Your task to perform on an android device: Show me productivity apps on the Play Store Image 0: 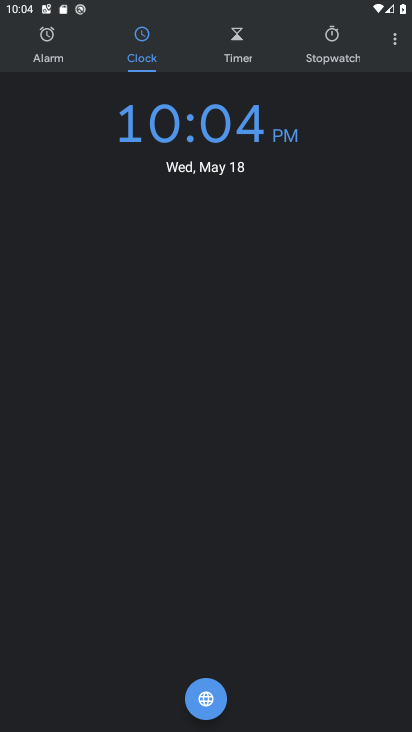
Step 0: press back button
Your task to perform on an android device: Show me productivity apps on the Play Store Image 1: 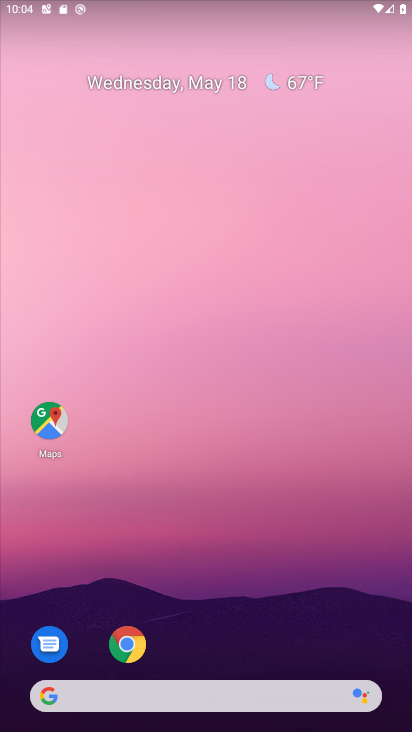
Step 1: drag from (235, 602) to (198, 134)
Your task to perform on an android device: Show me productivity apps on the Play Store Image 2: 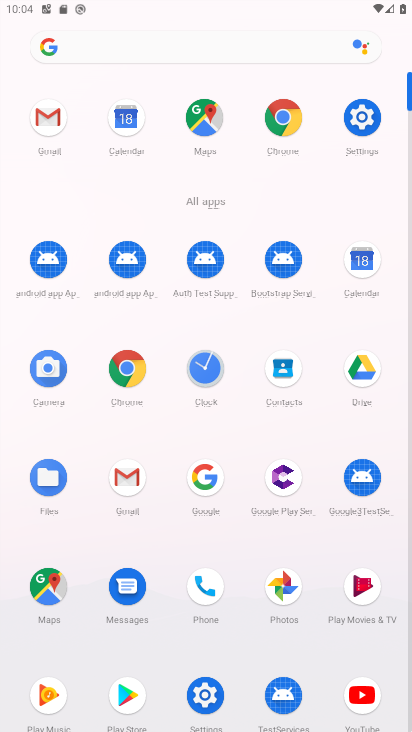
Step 2: drag from (241, 544) to (228, 423)
Your task to perform on an android device: Show me productivity apps on the Play Store Image 3: 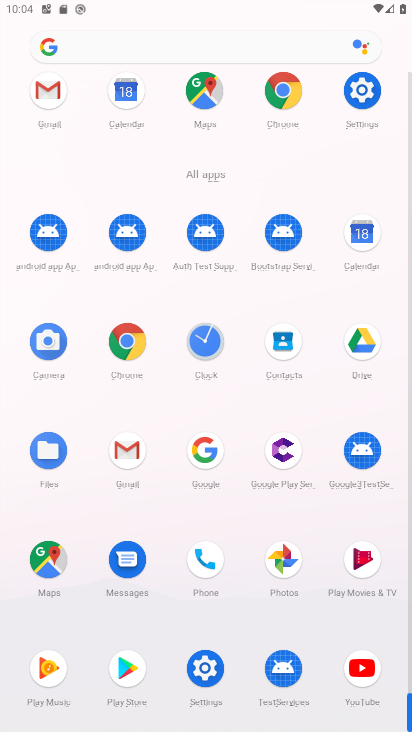
Step 3: click (127, 665)
Your task to perform on an android device: Show me productivity apps on the Play Store Image 4: 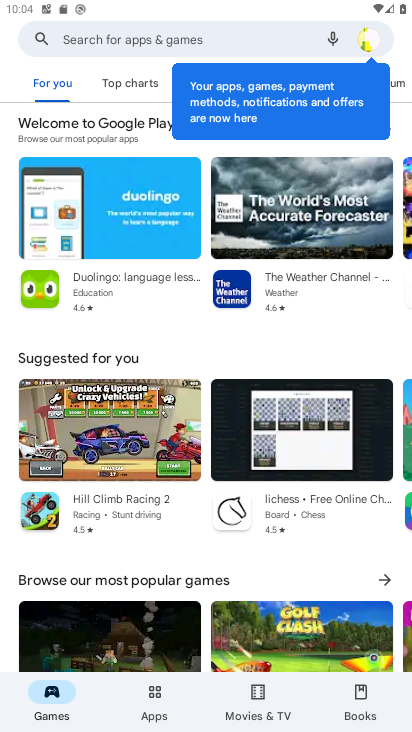
Step 4: click (152, 690)
Your task to perform on an android device: Show me productivity apps on the Play Store Image 5: 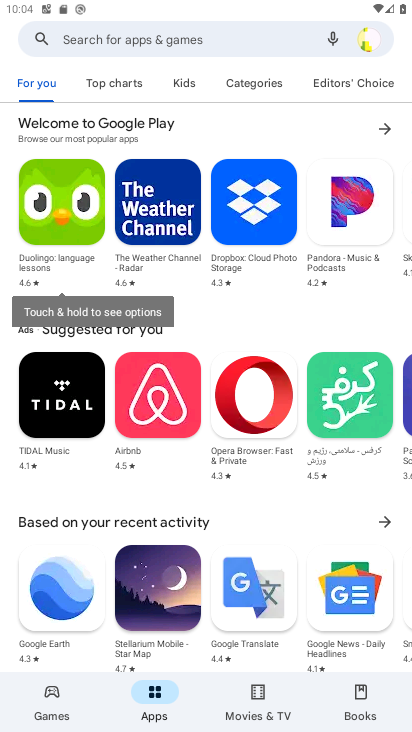
Step 5: click (253, 85)
Your task to perform on an android device: Show me productivity apps on the Play Store Image 6: 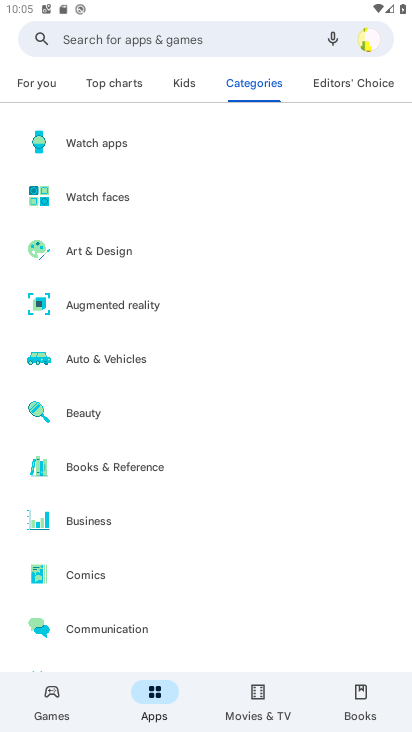
Step 6: drag from (122, 386) to (176, 290)
Your task to perform on an android device: Show me productivity apps on the Play Store Image 7: 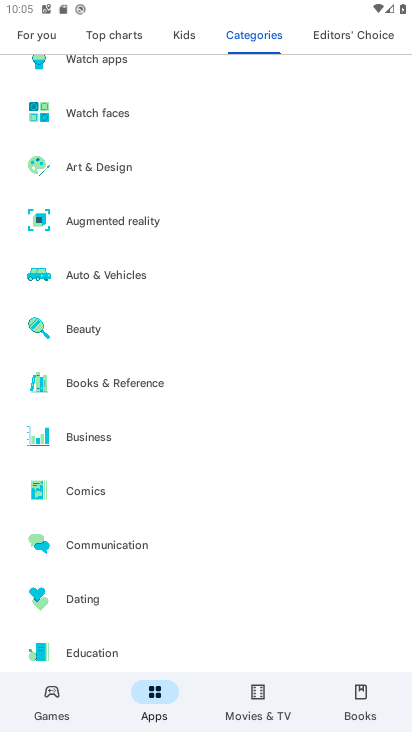
Step 7: drag from (86, 404) to (170, 310)
Your task to perform on an android device: Show me productivity apps on the Play Store Image 8: 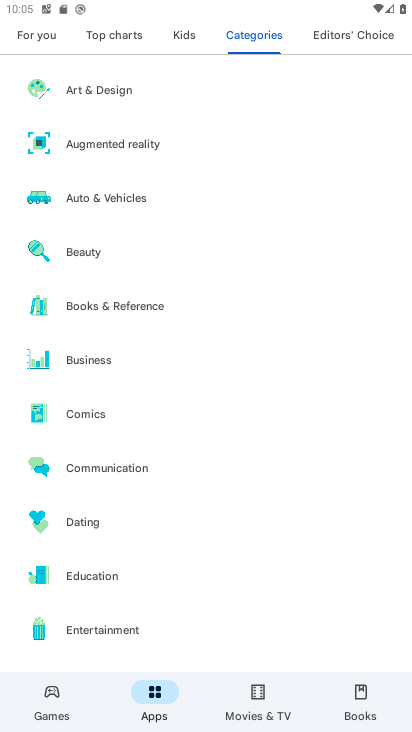
Step 8: drag from (90, 391) to (141, 304)
Your task to perform on an android device: Show me productivity apps on the Play Store Image 9: 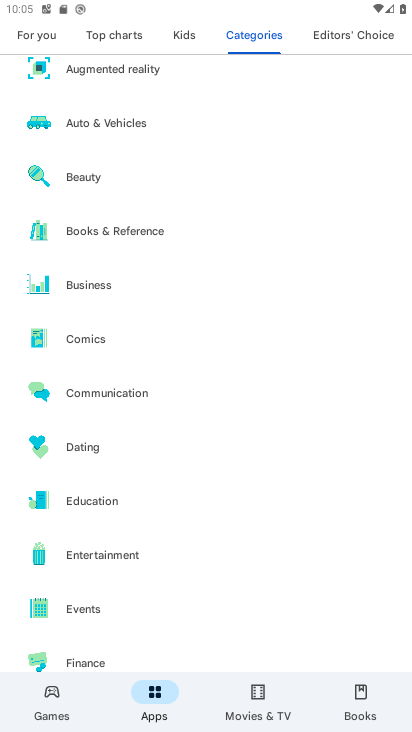
Step 9: drag from (81, 363) to (135, 283)
Your task to perform on an android device: Show me productivity apps on the Play Store Image 10: 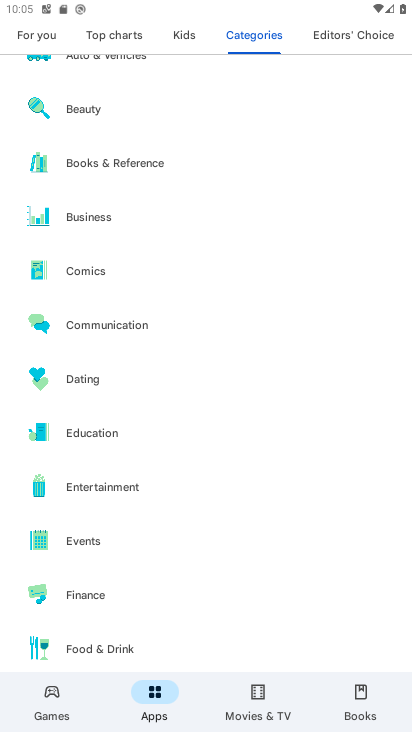
Step 10: drag from (73, 353) to (129, 267)
Your task to perform on an android device: Show me productivity apps on the Play Store Image 11: 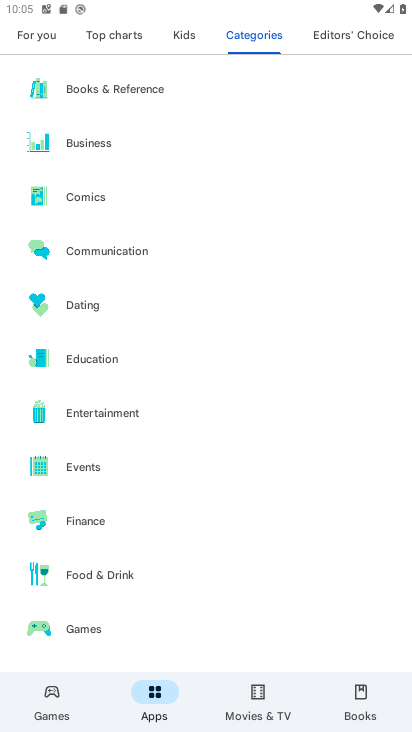
Step 11: drag from (77, 338) to (143, 253)
Your task to perform on an android device: Show me productivity apps on the Play Store Image 12: 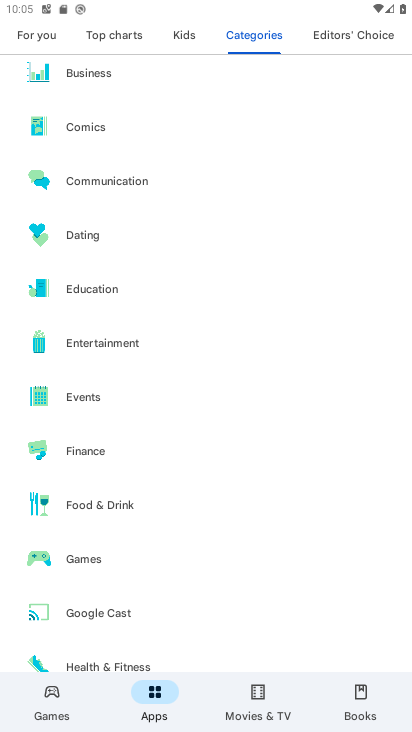
Step 12: drag from (68, 364) to (141, 278)
Your task to perform on an android device: Show me productivity apps on the Play Store Image 13: 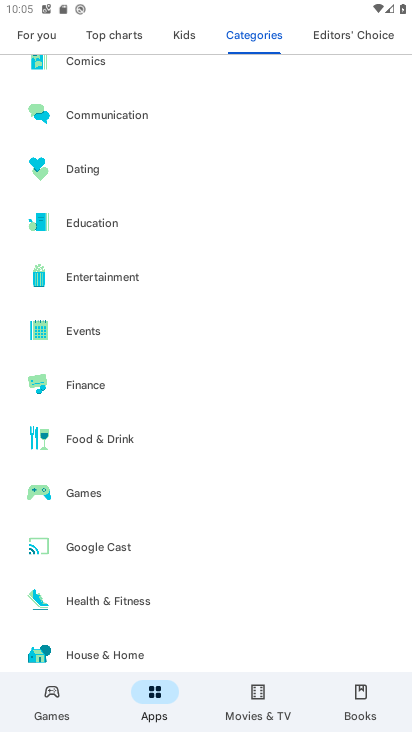
Step 13: drag from (74, 357) to (140, 276)
Your task to perform on an android device: Show me productivity apps on the Play Store Image 14: 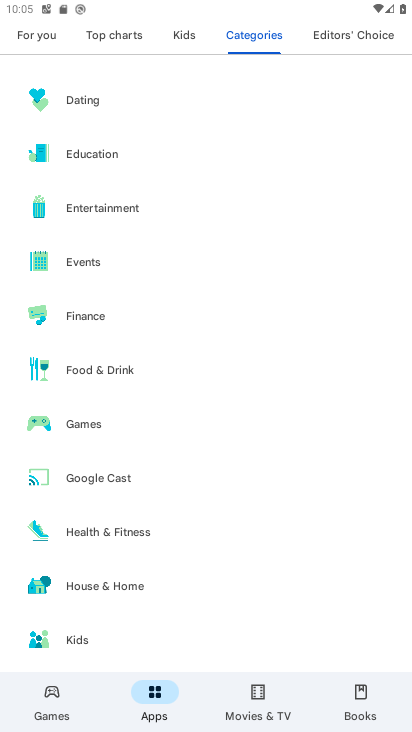
Step 14: drag from (69, 351) to (131, 268)
Your task to perform on an android device: Show me productivity apps on the Play Store Image 15: 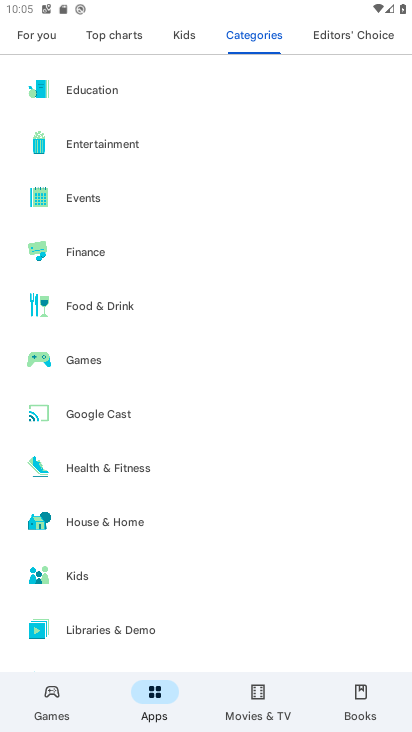
Step 15: drag from (73, 333) to (139, 255)
Your task to perform on an android device: Show me productivity apps on the Play Store Image 16: 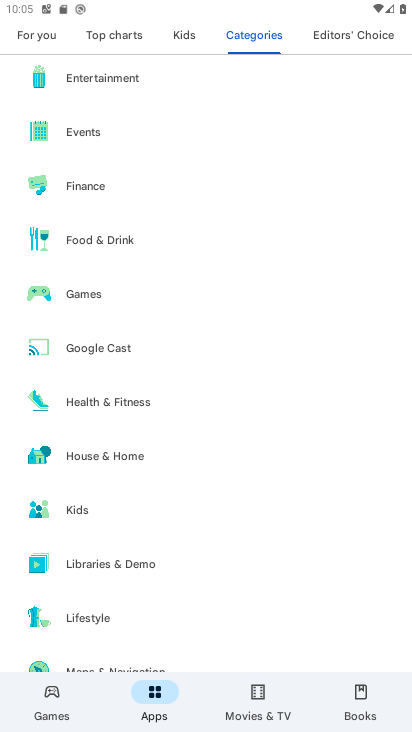
Step 16: drag from (76, 363) to (139, 284)
Your task to perform on an android device: Show me productivity apps on the Play Store Image 17: 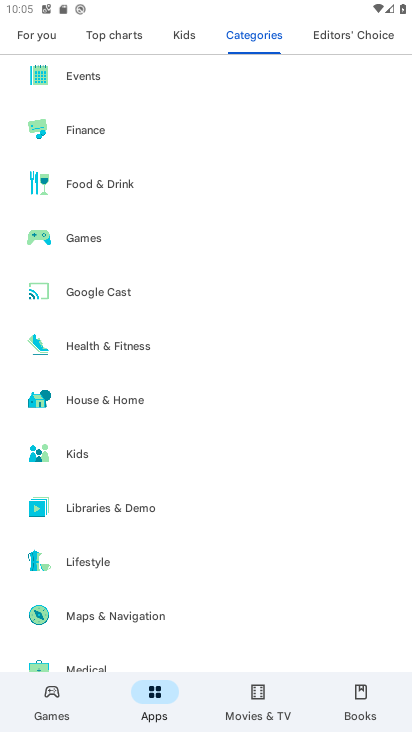
Step 17: drag from (78, 368) to (142, 293)
Your task to perform on an android device: Show me productivity apps on the Play Store Image 18: 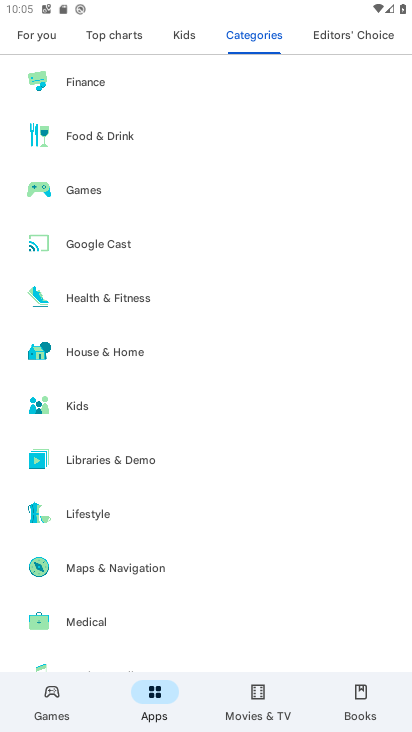
Step 18: drag from (88, 330) to (160, 253)
Your task to perform on an android device: Show me productivity apps on the Play Store Image 19: 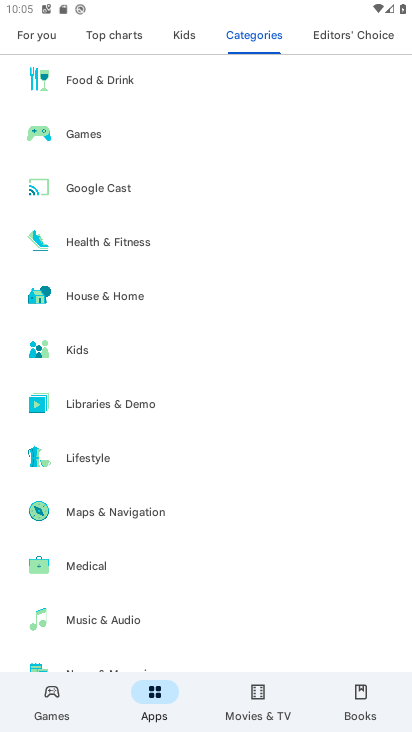
Step 19: drag from (81, 322) to (143, 244)
Your task to perform on an android device: Show me productivity apps on the Play Store Image 20: 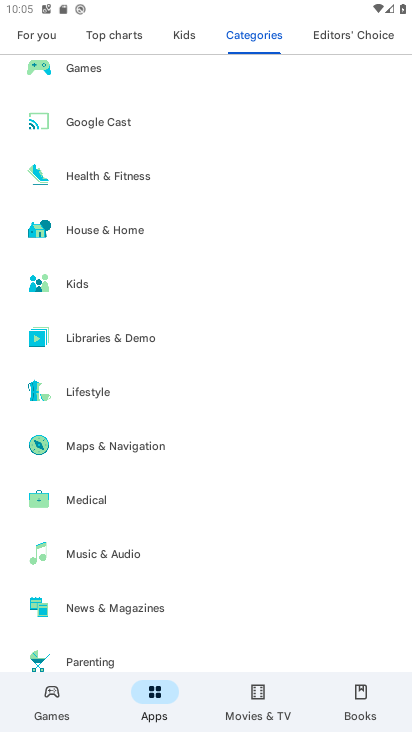
Step 20: drag from (70, 369) to (147, 269)
Your task to perform on an android device: Show me productivity apps on the Play Store Image 21: 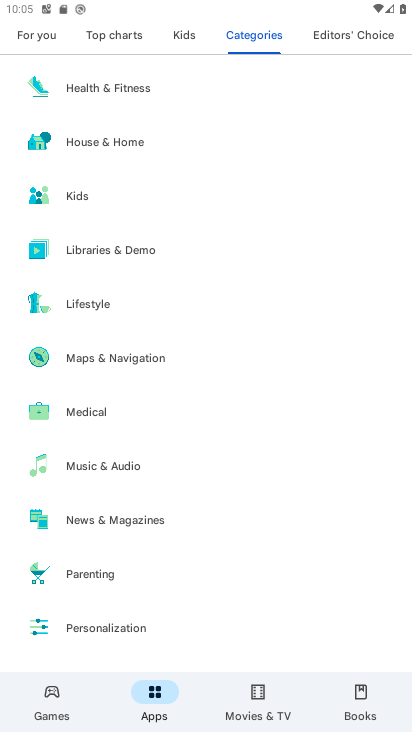
Step 21: drag from (67, 379) to (161, 269)
Your task to perform on an android device: Show me productivity apps on the Play Store Image 22: 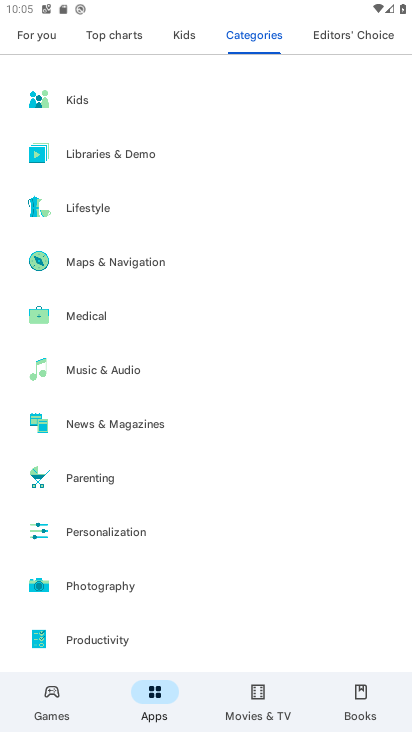
Step 22: drag from (75, 396) to (144, 301)
Your task to perform on an android device: Show me productivity apps on the Play Store Image 23: 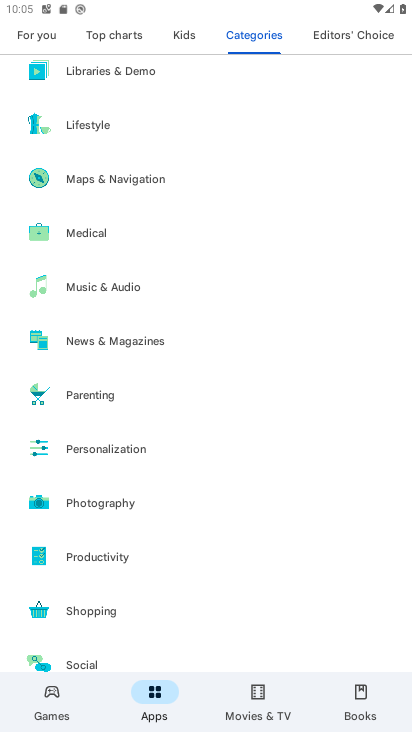
Step 23: click (73, 553)
Your task to perform on an android device: Show me productivity apps on the Play Store Image 24: 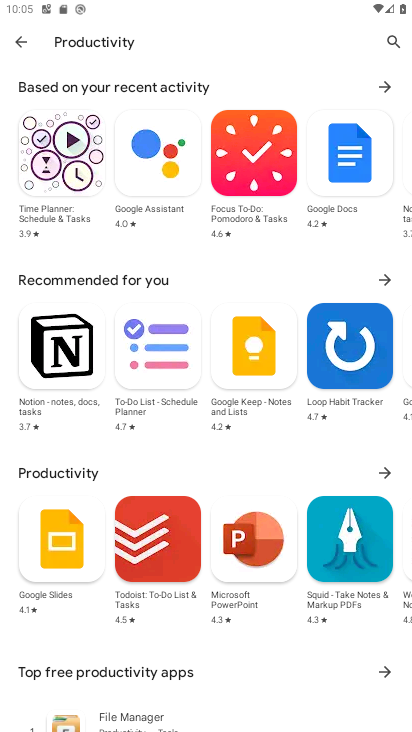
Step 24: task complete